Your task to perform on an android device: Open CNN.com Image 0: 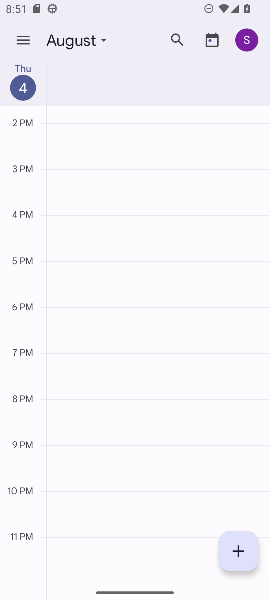
Step 0: press home button
Your task to perform on an android device: Open CNN.com Image 1: 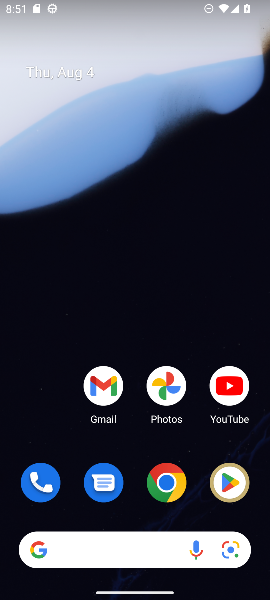
Step 1: drag from (132, 452) to (164, 0)
Your task to perform on an android device: Open CNN.com Image 2: 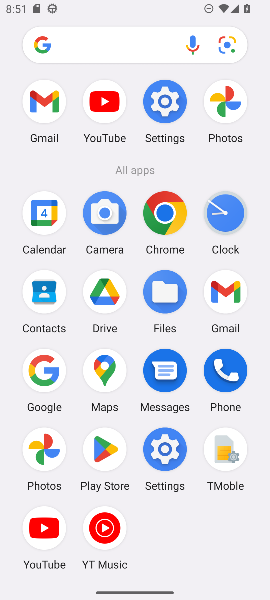
Step 2: click (161, 205)
Your task to perform on an android device: Open CNN.com Image 3: 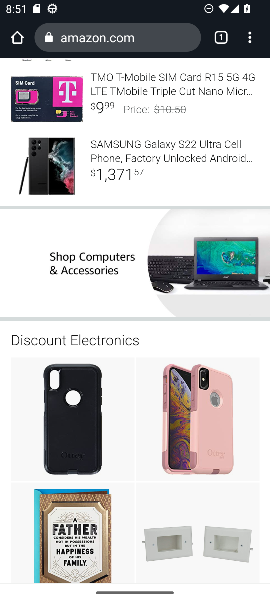
Step 3: click (222, 40)
Your task to perform on an android device: Open CNN.com Image 4: 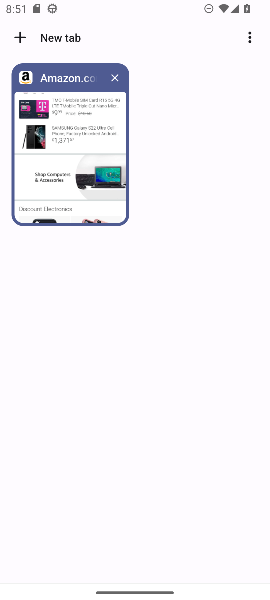
Step 4: click (18, 35)
Your task to perform on an android device: Open CNN.com Image 5: 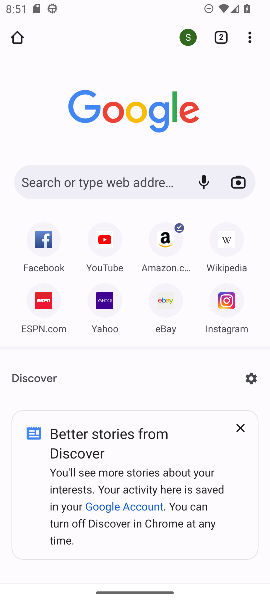
Step 5: click (90, 181)
Your task to perform on an android device: Open CNN.com Image 6: 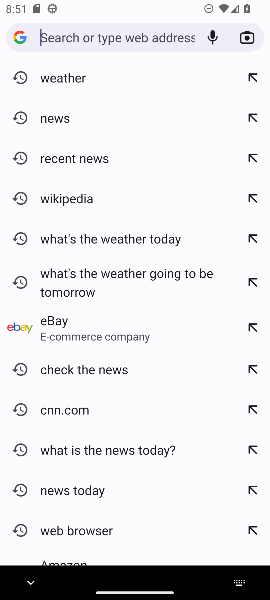
Step 6: type "cnn.com"
Your task to perform on an android device: Open CNN.com Image 7: 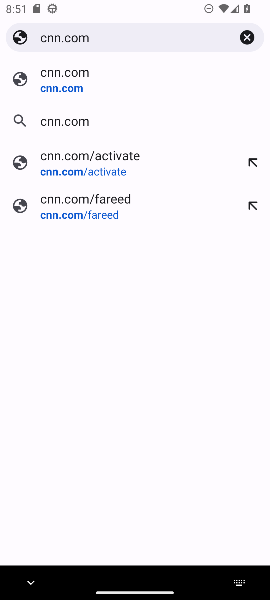
Step 7: click (106, 81)
Your task to perform on an android device: Open CNN.com Image 8: 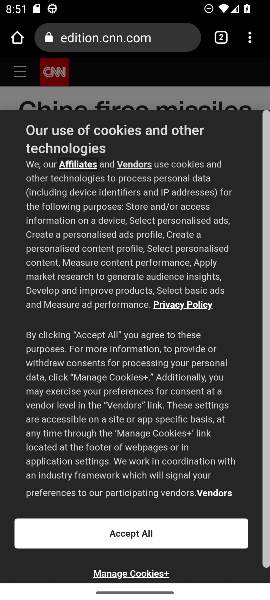
Step 8: click (134, 535)
Your task to perform on an android device: Open CNN.com Image 9: 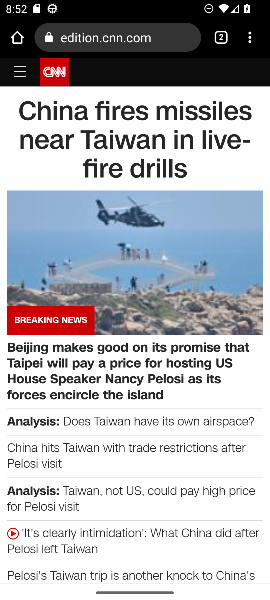
Step 9: task complete